Your task to perform on an android device: Do I have any events today? Image 0: 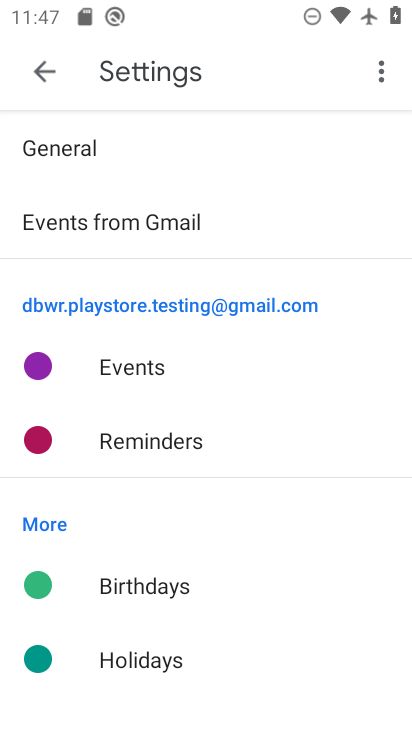
Step 0: click (198, 658)
Your task to perform on an android device: Do I have any events today? Image 1: 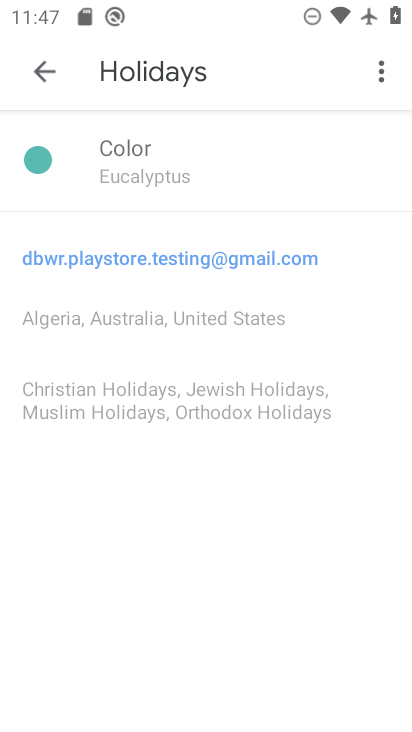
Step 1: drag from (222, 626) to (291, 282)
Your task to perform on an android device: Do I have any events today? Image 2: 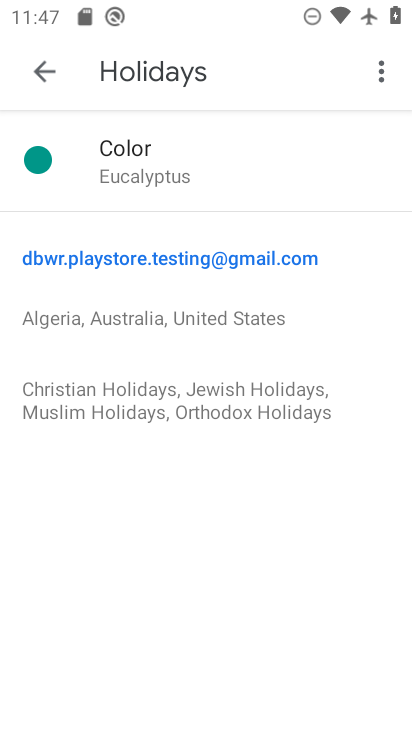
Step 2: click (38, 73)
Your task to perform on an android device: Do I have any events today? Image 3: 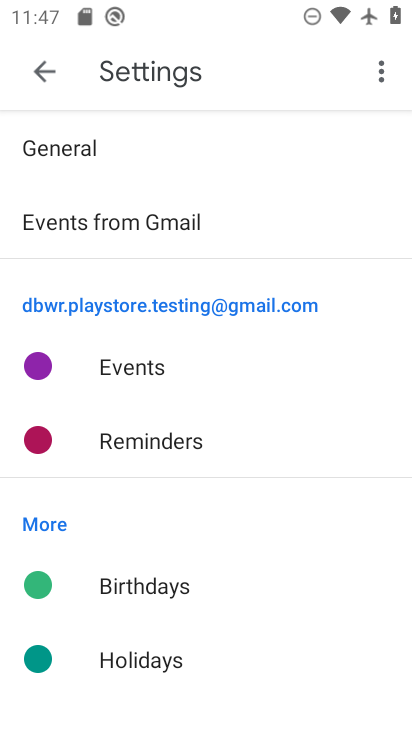
Step 3: click (39, 74)
Your task to perform on an android device: Do I have any events today? Image 4: 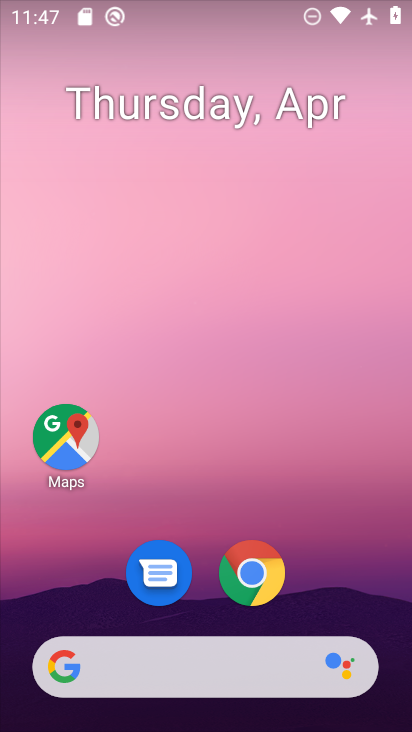
Step 4: drag from (333, 619) to (343, 38)
Your task to perform on an android device: Do I have any events today? Image 5: 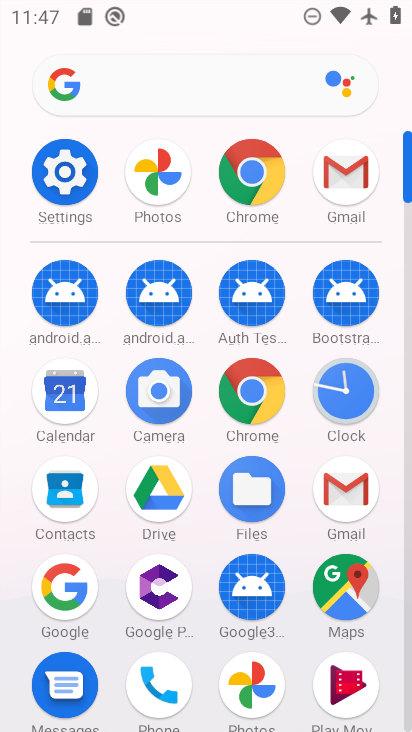
Step 5: click (75, 411)
Your task to perform on an android device: Do I have any events today? Image 6: 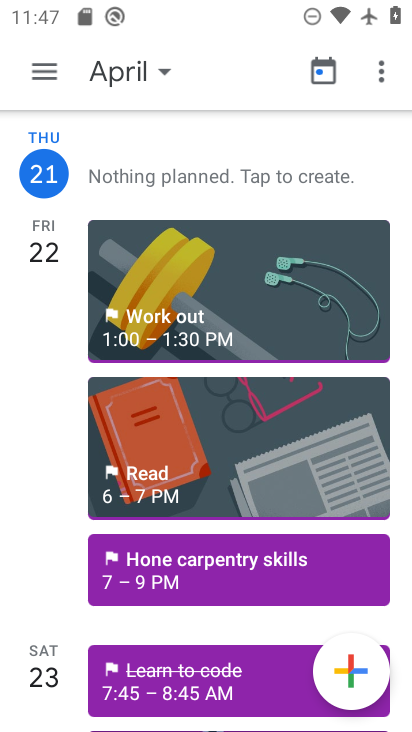
Step 6: click (44, 73)
Your task to perform on an android device: Do I have any events today? Image 7: 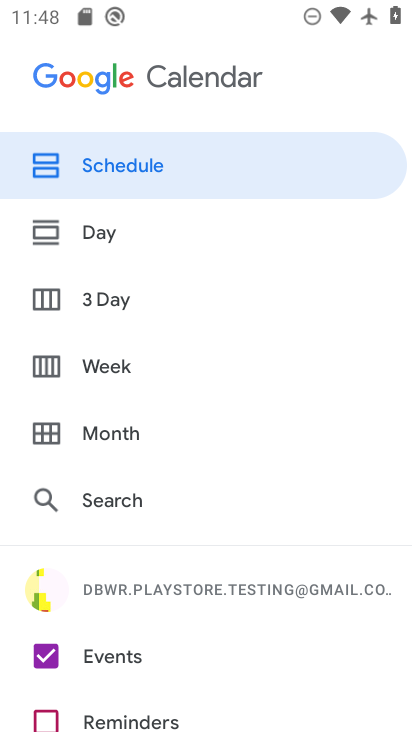
Step 7: click (84, 224)
Your task to perform on an android device: Do I have any events today? Image 8: 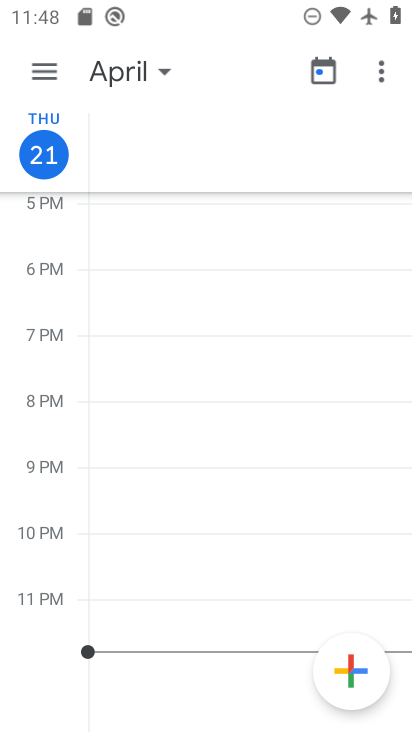
Step 8: task complete